Your task to perform on an android device: turn on priority inbox in the gmail app Image 0: 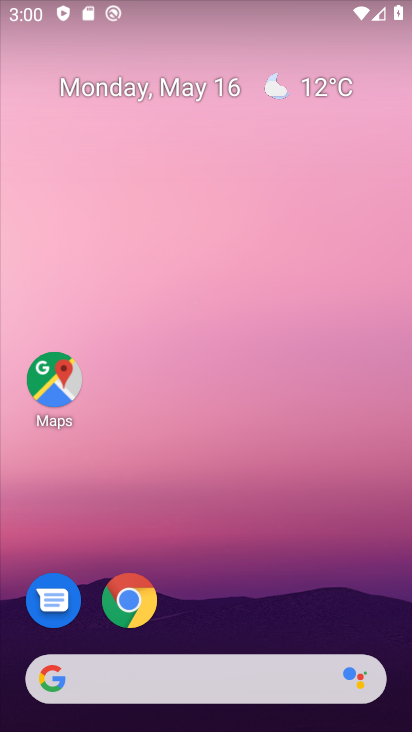
Step 0: drag from (231, 636) to (334, 1)
Your task to perform on an android device: turn on priority inbox in the gmail app Image 1: 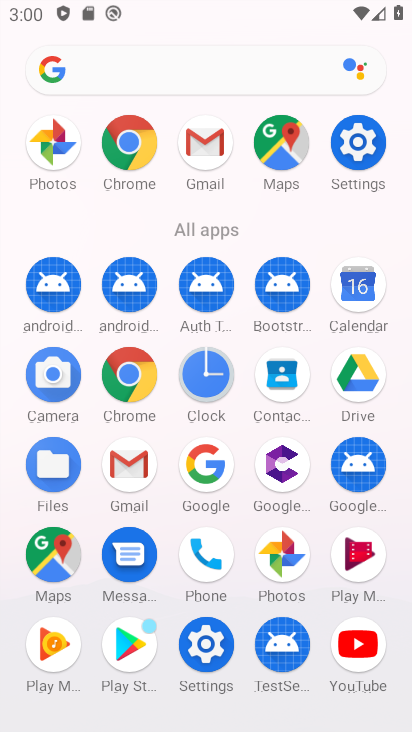
Step 1: click (126, 473)
Your task to perform on an android device: turn on priority inbox in the gmail app Image 2: 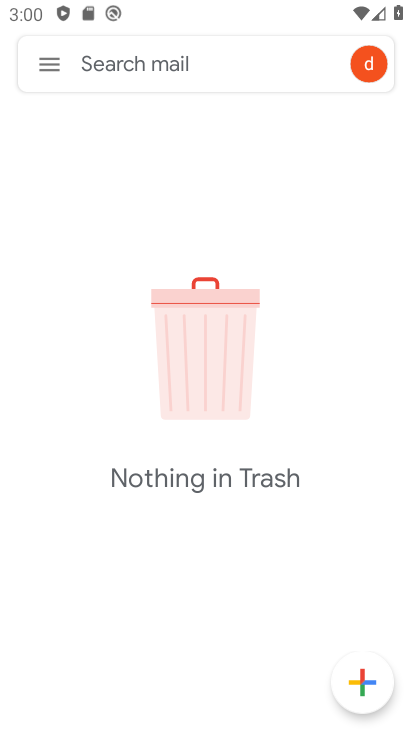
Step 2: click (36, 60)
Your task to perform on an android device: turn on priority inbox in the gmail app Image 3: 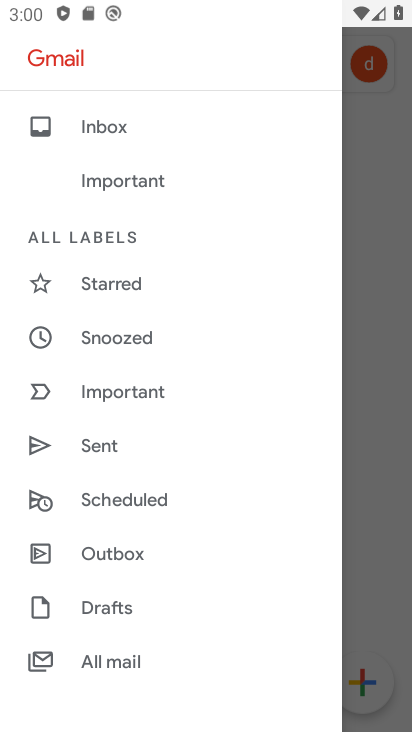
Step 3: drag from (97, 637) to (80, 170)
Your task to perform on an android device: turn on priority inbox in the gmail app Image 4: 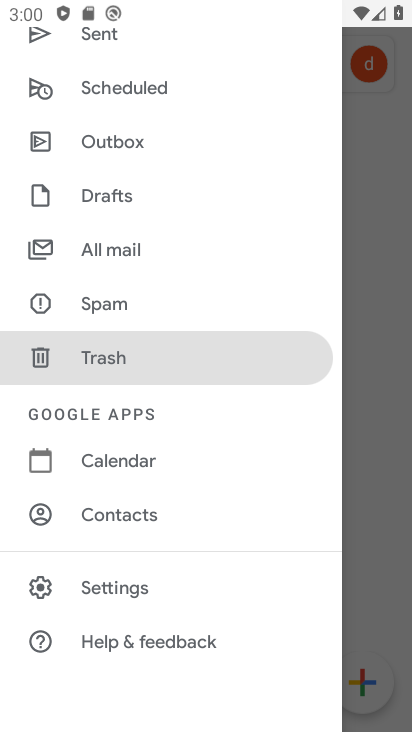
Step 4: click (131, 579)
Your task to perform on an android device: turn on priority inbox in the gmail app Image 5: 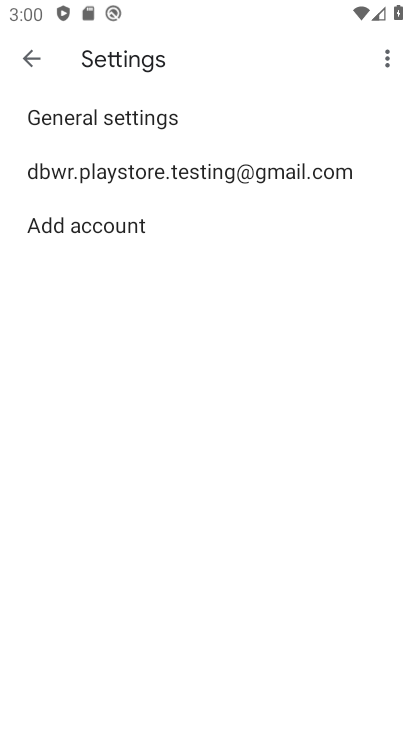
Step 5: click (133, 189)
Your task to perform on an android device: turn on priority inbox in the gmail app Image 6: 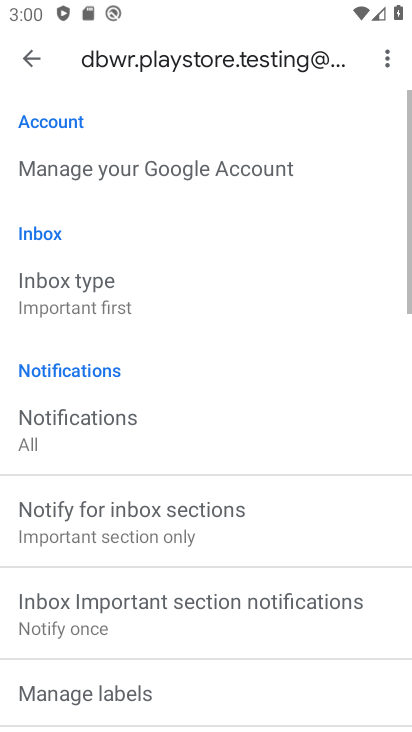
Step 6: click (79, 302)
Your task to perform on an android device: turn on priority inbox in the gmail app Image 7: 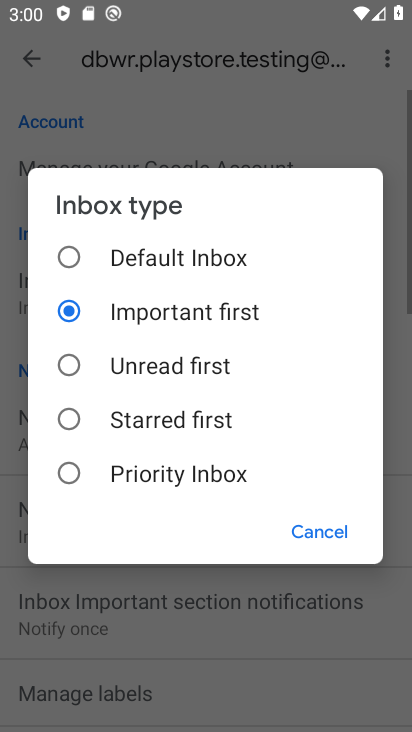
Step 7: click (97, 465)
Your task to perform on an android device: turn on priority inbox in the gmail app Image 8: 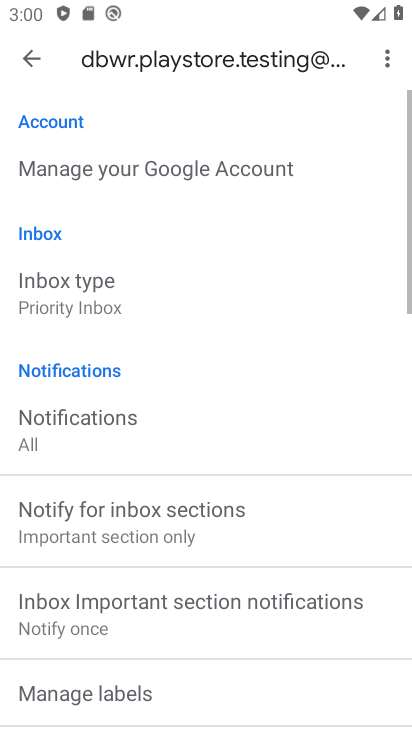
Step 8: task complete